Your task to perform on an android device: find photos in the google photos app Image 0: 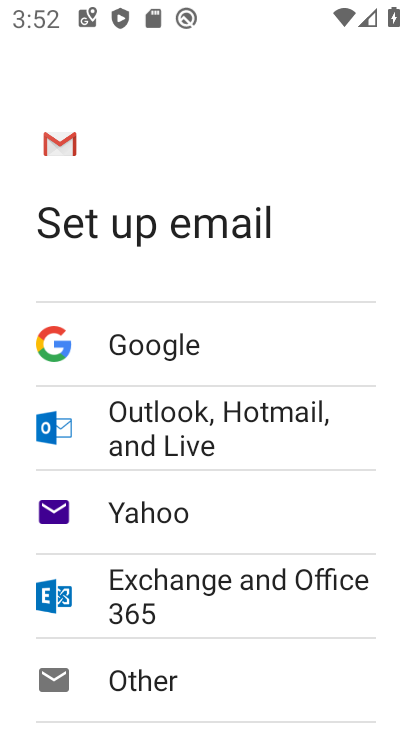
Step 0: press home button
Your task to perform on an android device: find photos in the google photos app Image 1: 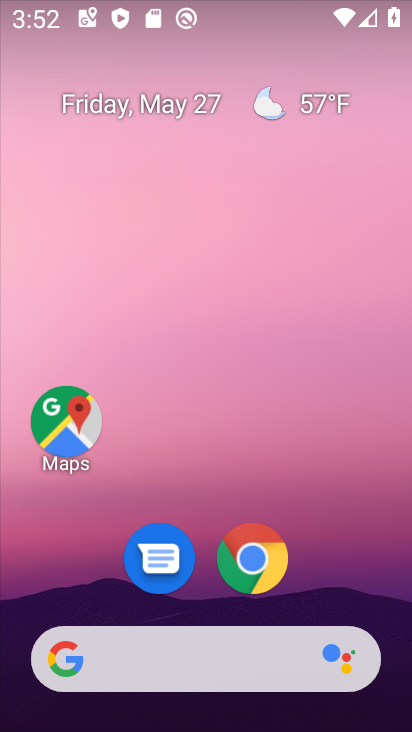
Step 1: drag from (356, 566) to (266, 10)
Your task to perform on an android device: find photos in the google photos app Image 2: 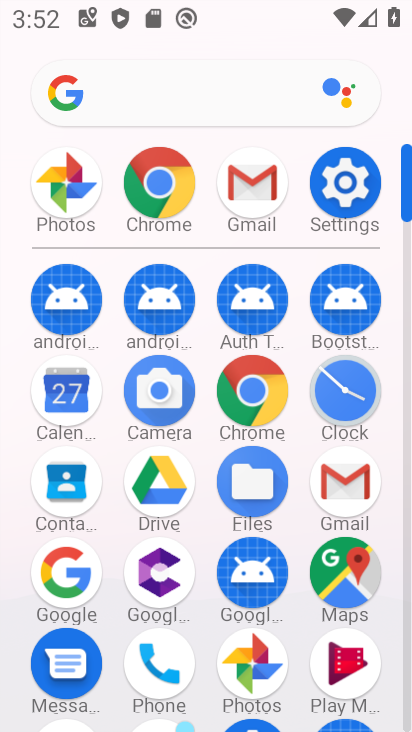
Step 2: click (247, 682)
Your task to perform on an android device: find photos in the google photos app Image 3: 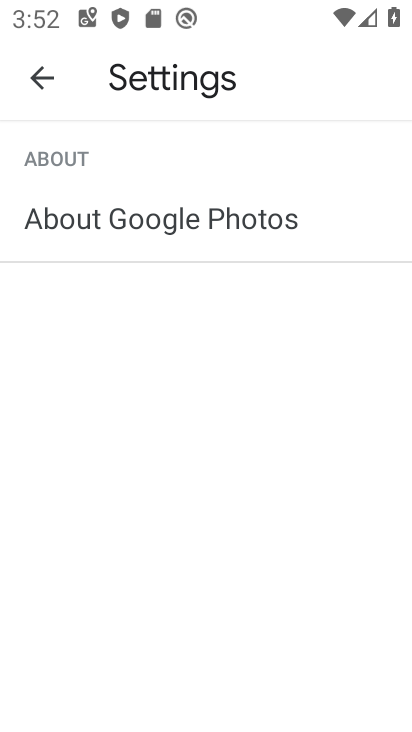
Step 3: click (46, 81)
Your task to perform on an android device: find photos in the google photos app Image 4: 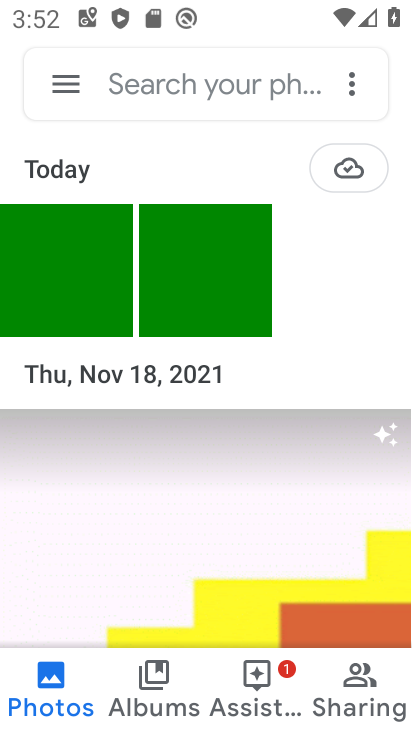
Step 4: task complete